Your task to perform on an android device: Open Google Chrome and open the bookmarks view Image 0: 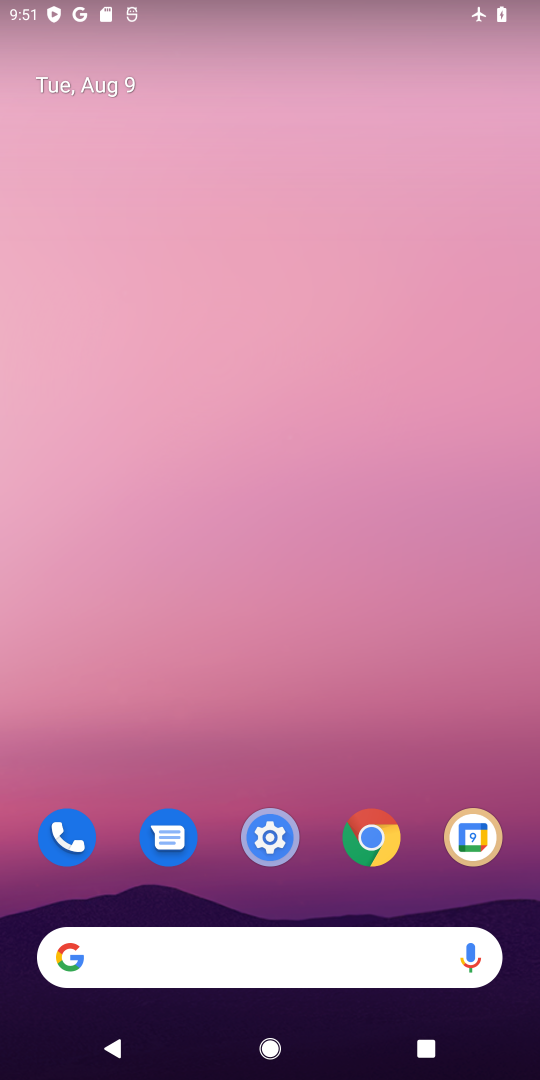
Step 0: click (368, 851)
Your task to perform on an android device: Open Google Chrome and open the bookmarks view Image 1: 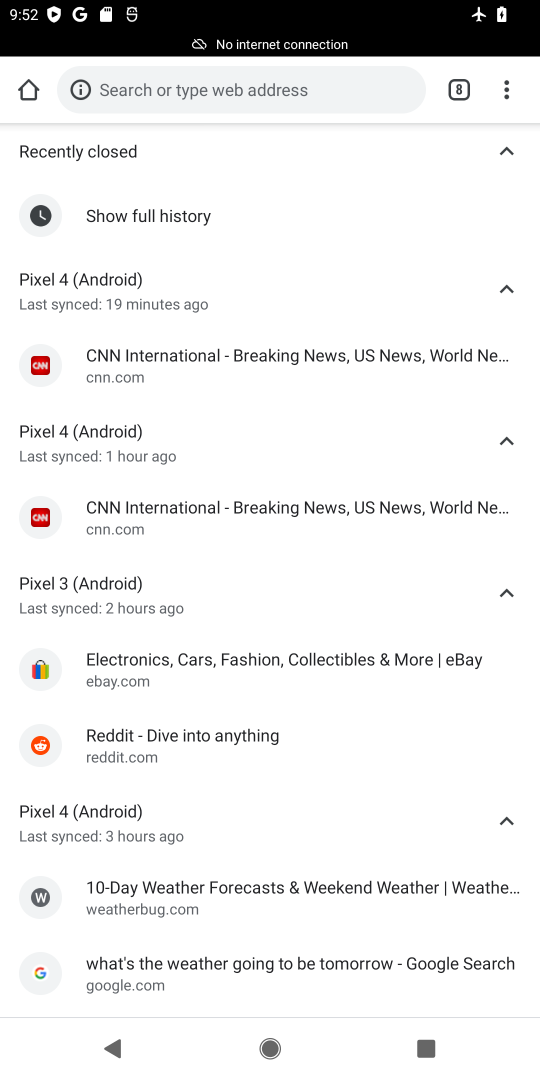
Step 1: click (506, 91)
Your task to perform on an android device: Open Google Chrome and open the bookmarks view Image 2: 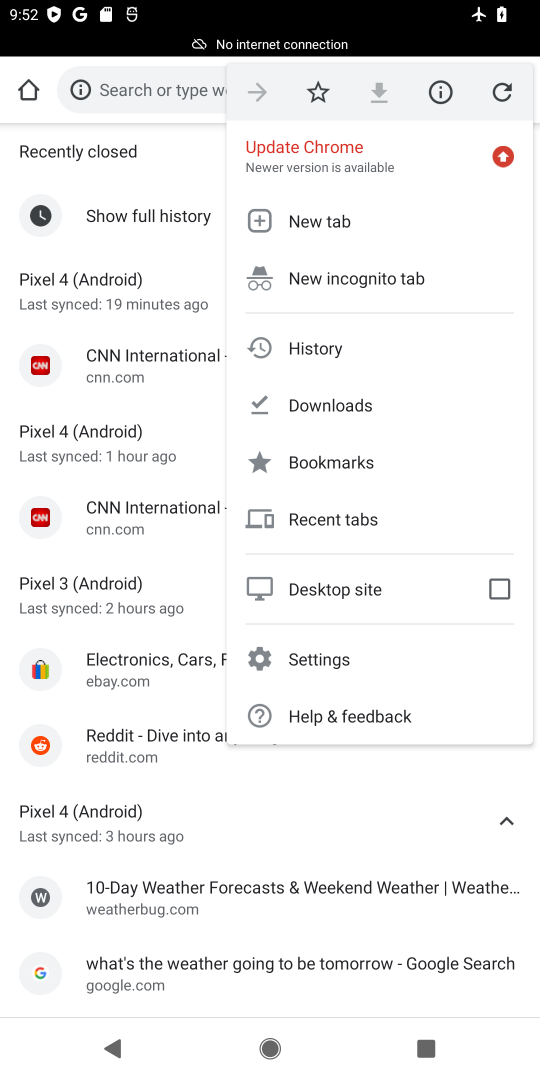
Step 2: click (357, 461)
Your task to perform on an android device: Open Google Chrome and open the bookmarks view Image 3: 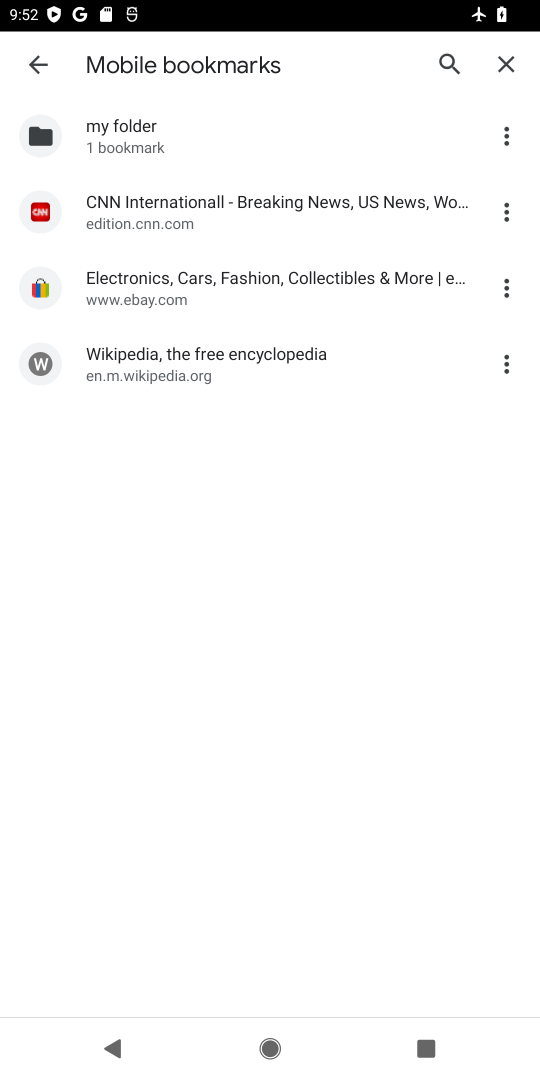
Step 3: task complete